Your task to perform on an android device: Go to accessibility settings Image 0: 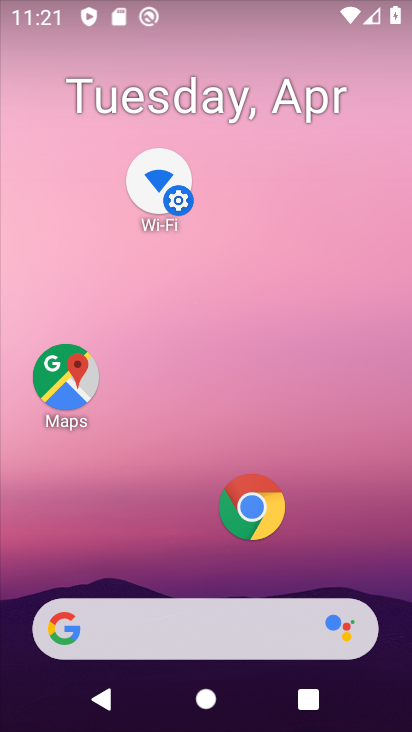
Step 0: drag from (216, 248) to (280, 136)
Your task to perform on an android device: Go to accessibility settings Image 1: 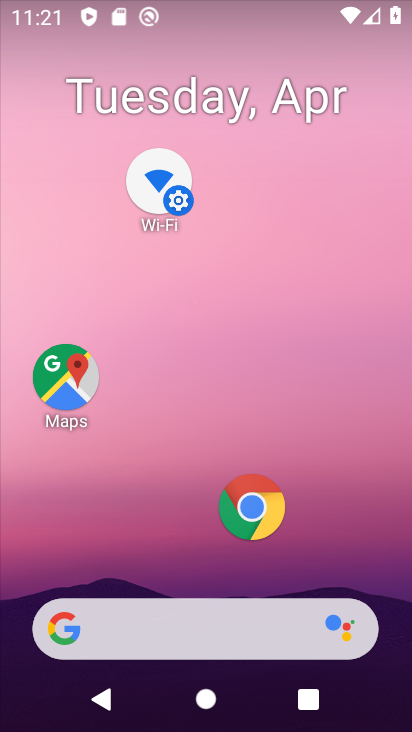
Step 1: drag from (46, 641) to (347, 83)
Your task to perform on an android device: Go to accessibility settings Image 2: 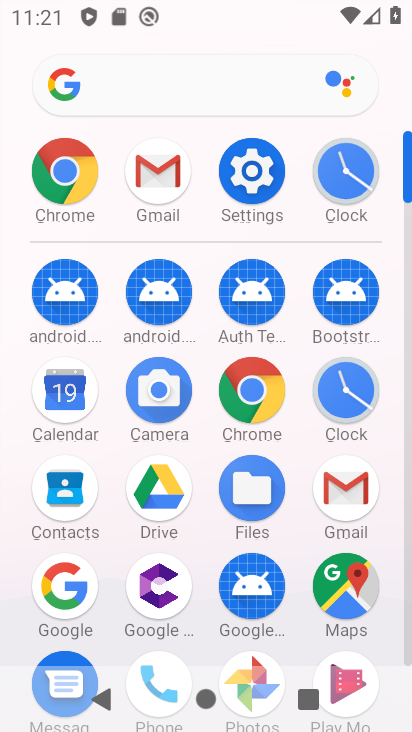
Step 2: click (248, 167)
Your task to perform on an android device: Go to accessibility settings Image 3: 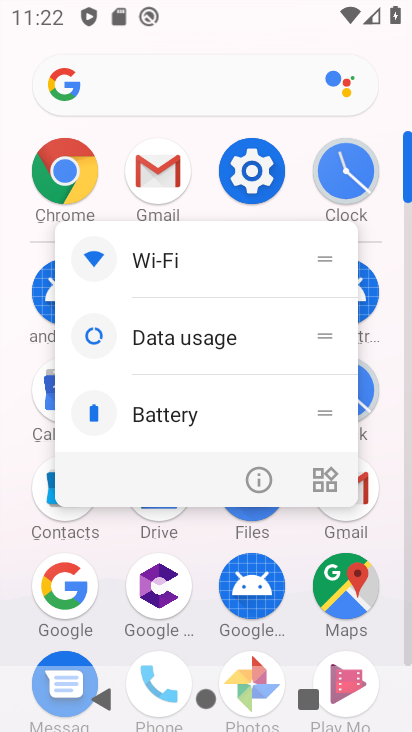
Step 3: click (250, 154)
Your task to perform on an android device: Go to accessibility settings Image 4: 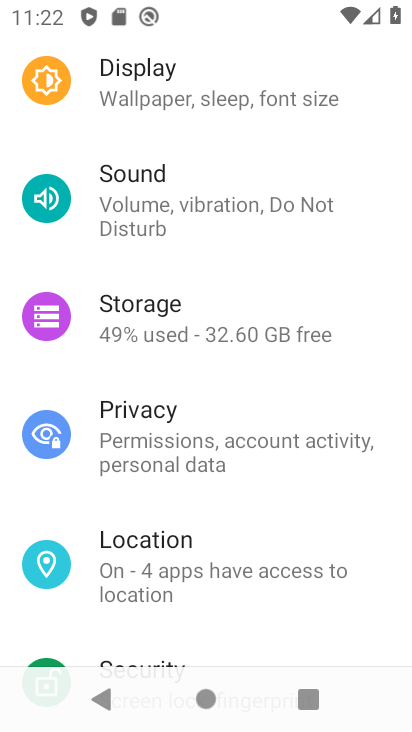
Step 4: drag from (196, 552) to (349, 99)
Your task to perform on an android device: Go to accessibility settings Image 5: 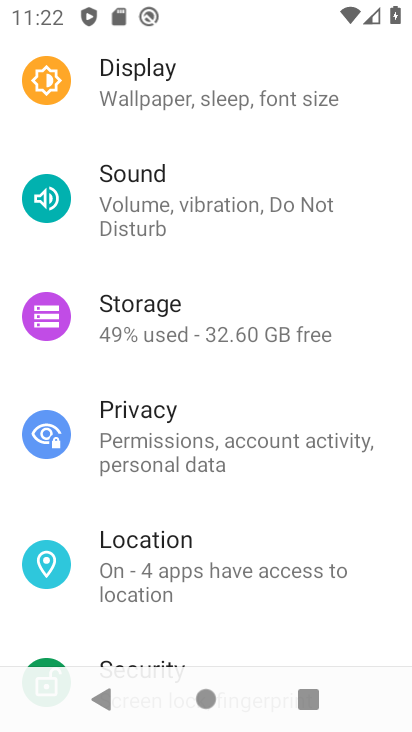
Step 5: drag from (250, 599) to (315, 208)
Your task to perform on an android device: Go to accessibility settings Image 6: 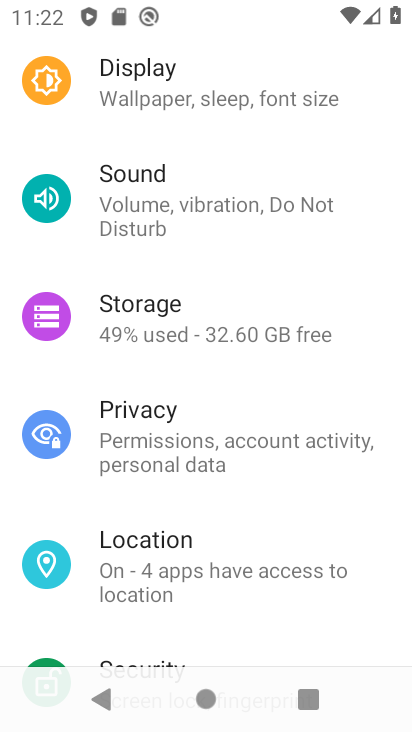
Step 6: drag from (221, 618) to (306, 282)
Your task to perform on an android device: Go to accessibility settings Image 7: 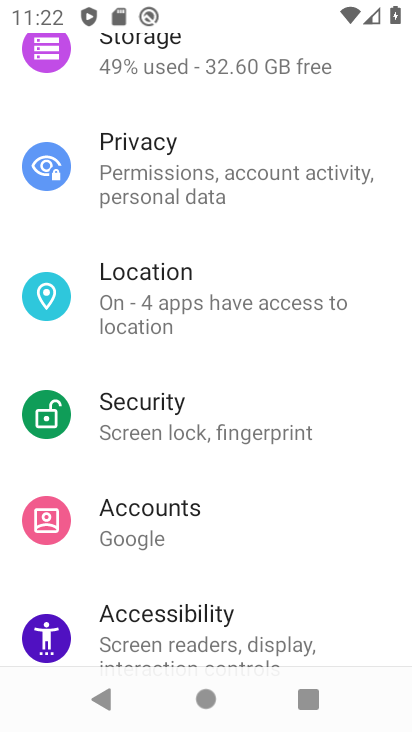
Step 7: click (188, 628)
Your task to perform on an android device: Go to accessibility settings Image 8: 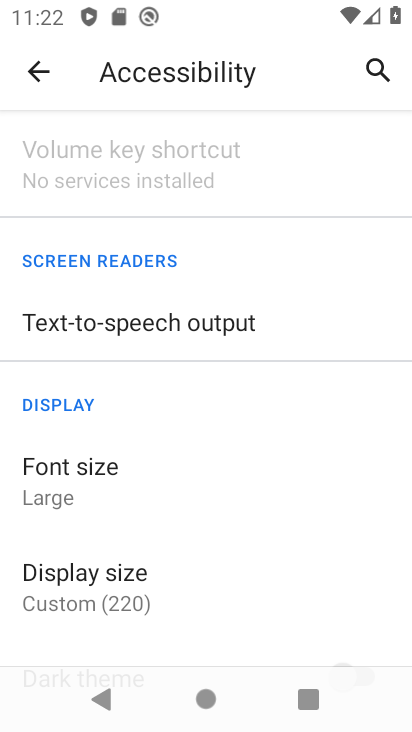
Step 8: task complete